Your task to perform on an android device: Open battery settings Image 0: 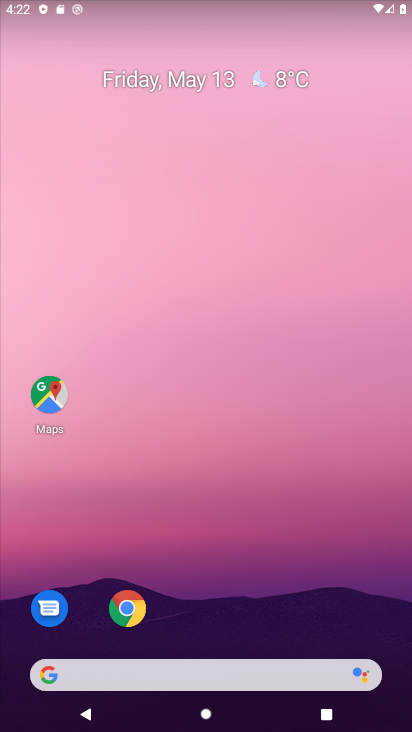
Step 0: drag from (203, 550) to (176, 67)
Your task to perform on an android device: Open battery settings Image 1: 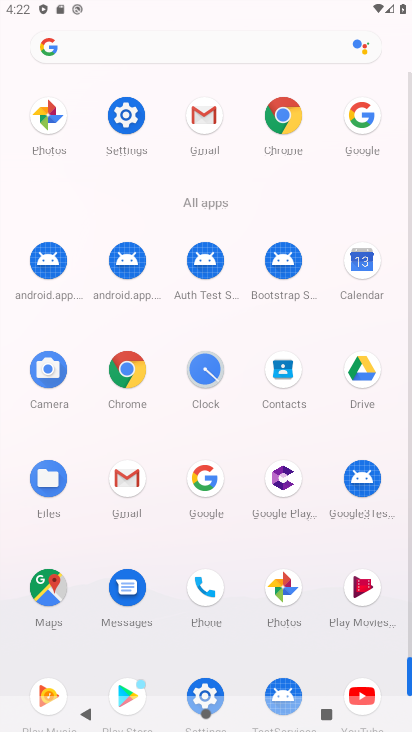
Step 1: click (126, 114)
Your task to perform on an android device: Open battery settings Image 2: 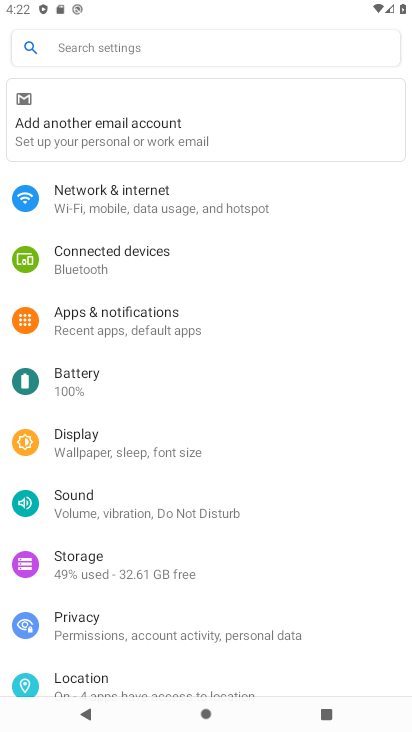
Step 2: click (79, 388)
Your task to perform on an android device: Open battery settings Image 3: 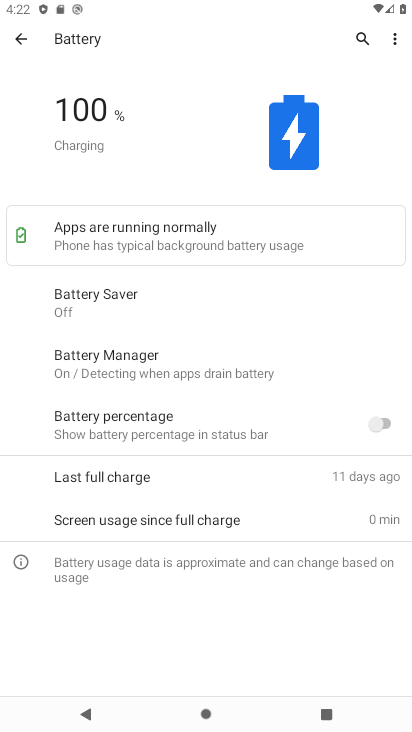
Step 3: task complete